Your task to perform on an android device: turn off location Image 0: 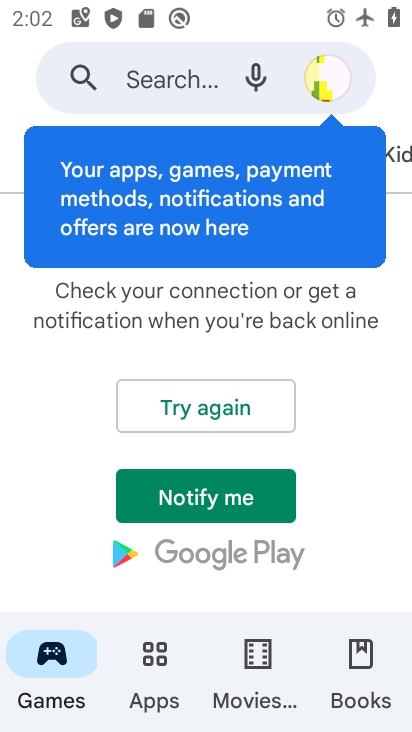
Step 0: press home button
Your task to perform on an android device: turn off location Image 1: 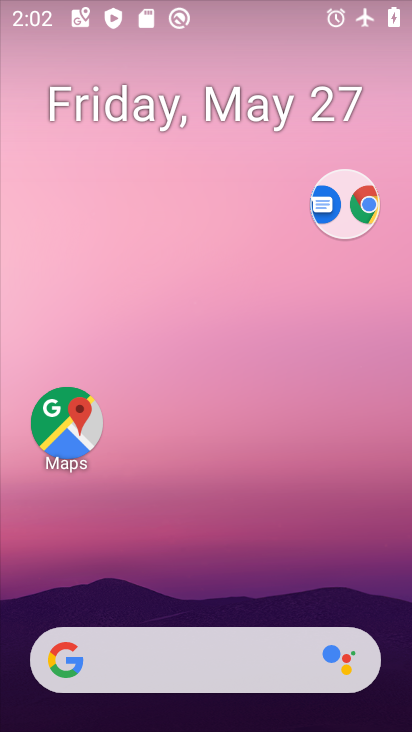
Step 1: drag from (222, 523) to (262, 319)
Your task to perform on an android device: turn off location Image 2: 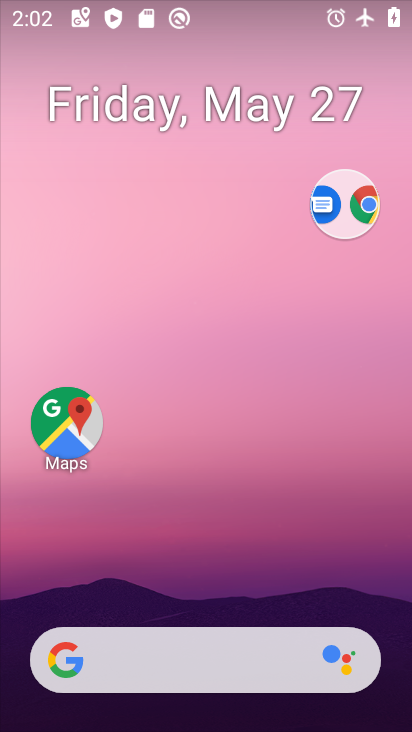
Step 2: drag from (262, 458) to (11, 387)
Your task to perform on an android device: turn off location Image 3: 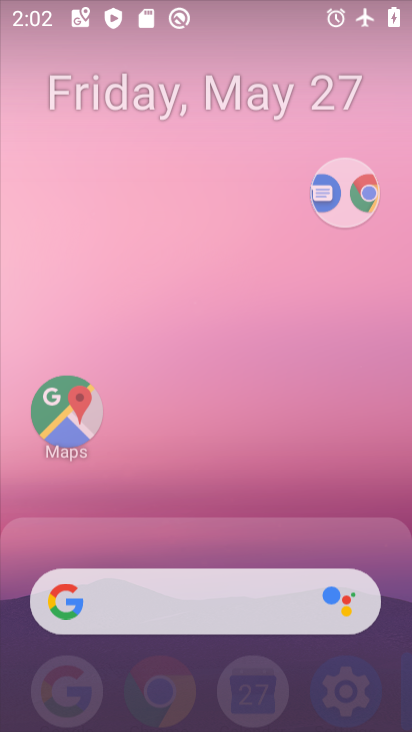
Step 3: drag from (158, 474) to (168, 311)
Your task to perform on an android device: turn off location Image 4: 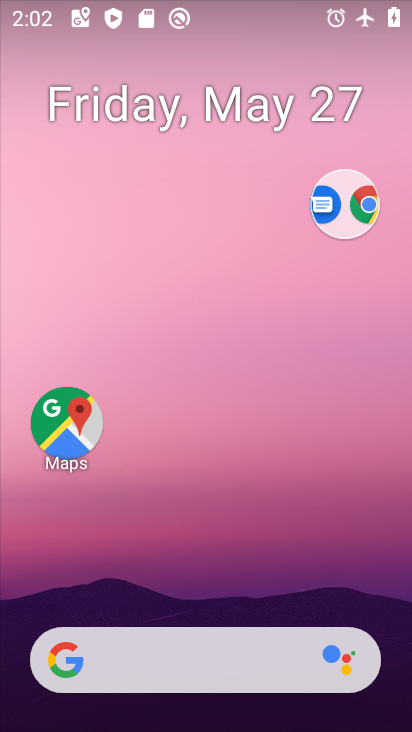
Step 4: drag from (156, 609) to (206, 0)
Your task to perform on an android device: turn off location Image 5: 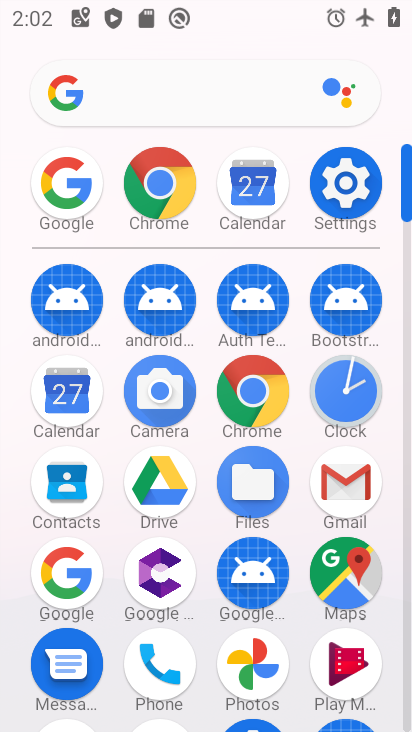
Step 5: click (347, 194)
Your task to perform on an android device: turn off location Image 6: 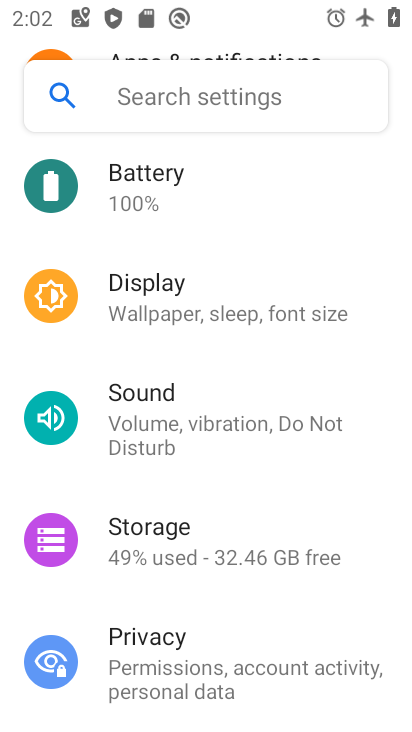
Step 6: drag from (175, 545) to (175, 272)
Your task to perform on an android device: turn off location Image 7: 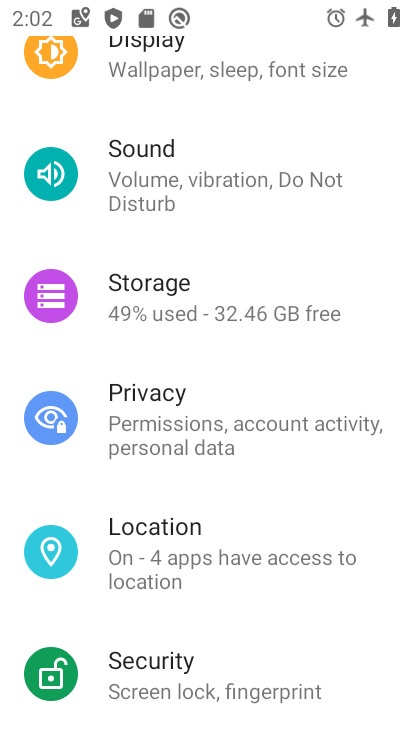
Step 7: click (192, 552)
Your task to perform on an android device: turn off location Image 8: 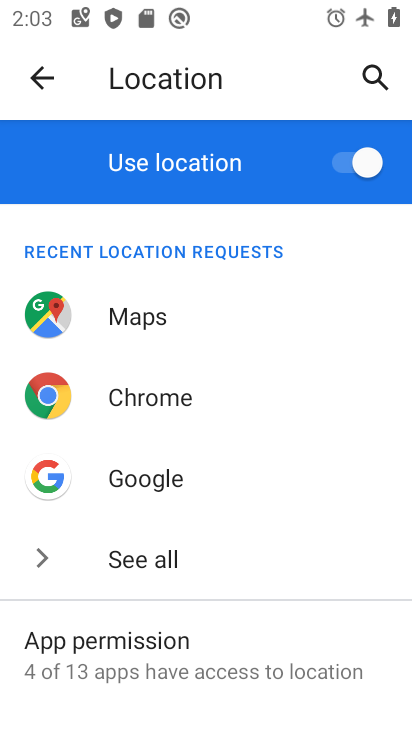
Step 8: drag from (227, 577) to (234, 502)
Your task to perform on an android device: turn off location Image 9: 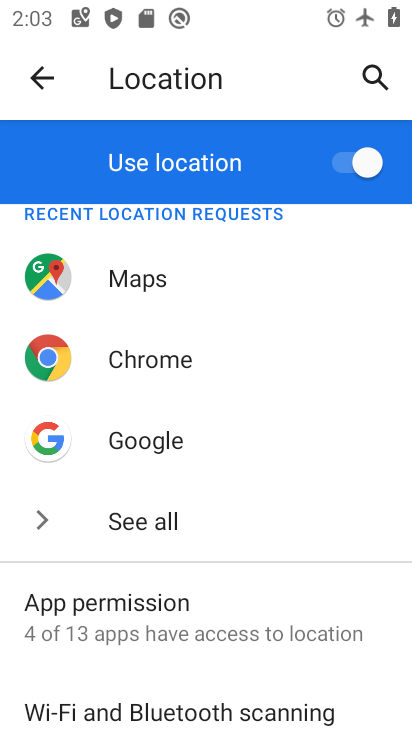
Step 9: click (322, 173)
Your task to perform on an android device: turn off location Image 10: 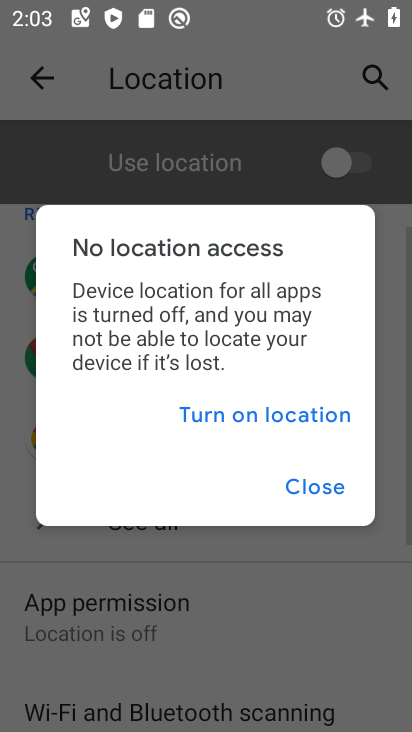
Step 10: task complete